Your task to perform on an android device: Go to display settings Image 0: 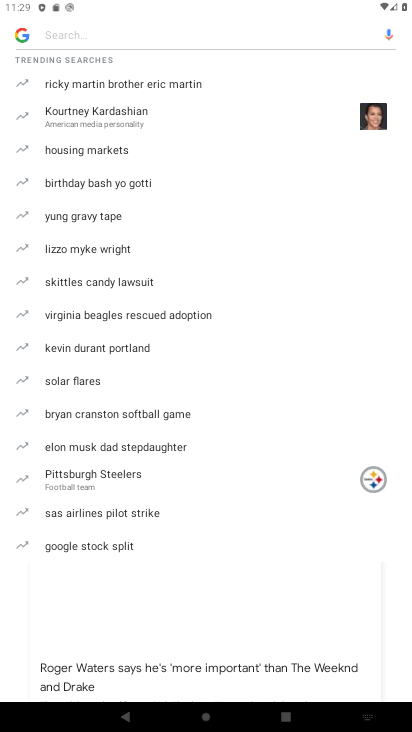
Step 0: press home button
Your task to perform on an android device: Go to display settings Image 1: 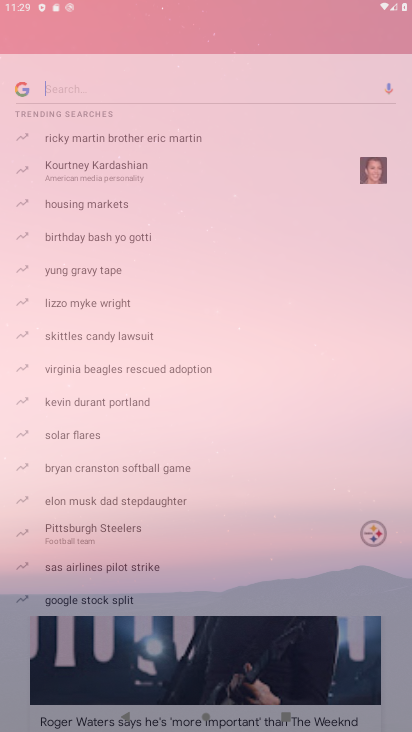
Step 1: drag from (207, 647) to (158, 268)
Your task to perform on an android device: Go to display settings Image 2: 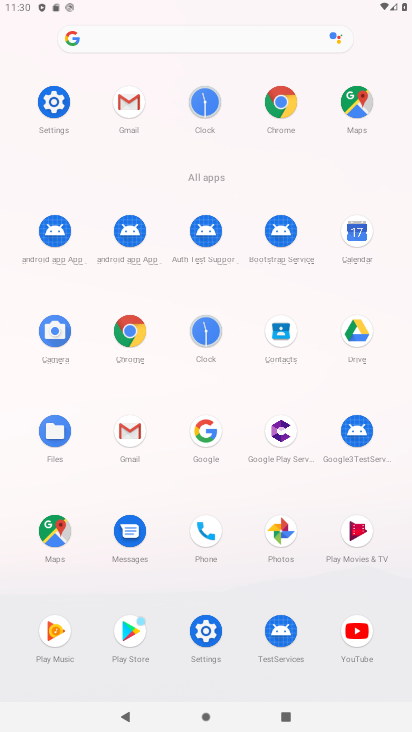
Step 2: click (59, 101)
Your task to perform on an android device: Go to display settings Image 3: 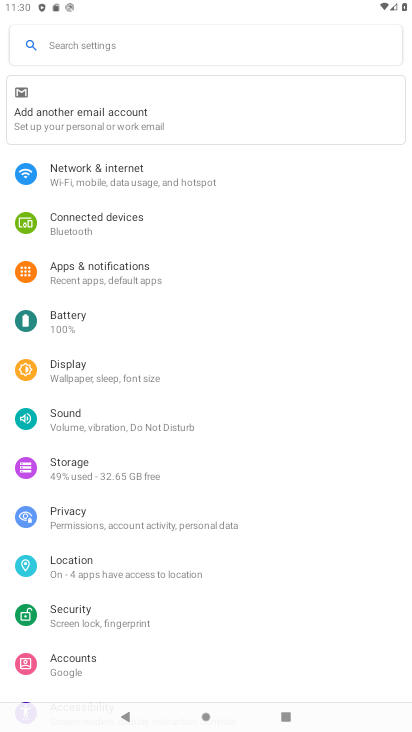
Step 3: click (87, 382)
Your task to perform on an android device: Go to display settings Image 4: 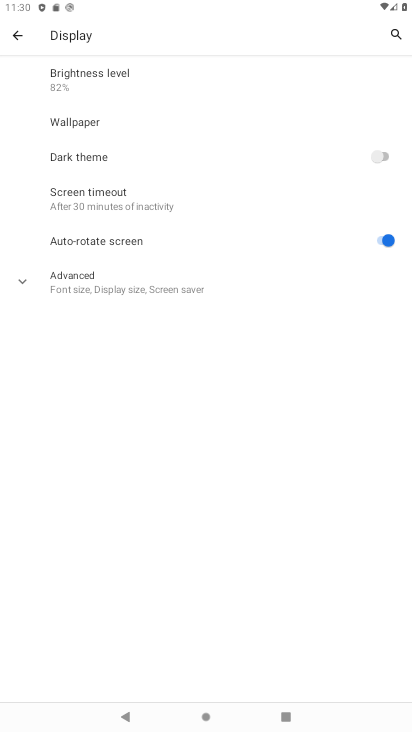
Step 4: task complete